Your task to perform on an android device: Check the weather Image 0: 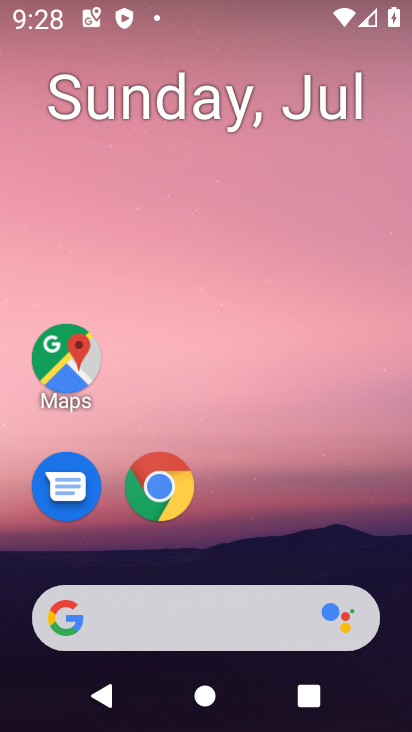
Step 0: press home button
Your task to perform on an android device: Check the weather Image 1: 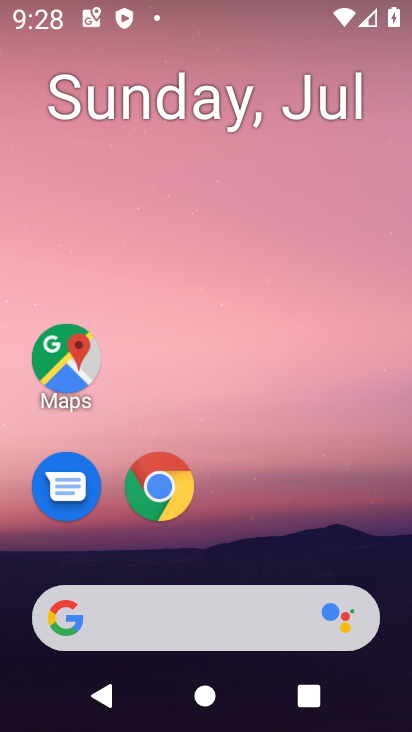
Step 1: click (192, 619)
Your task to perform on an android device: Check the weather Image 2: 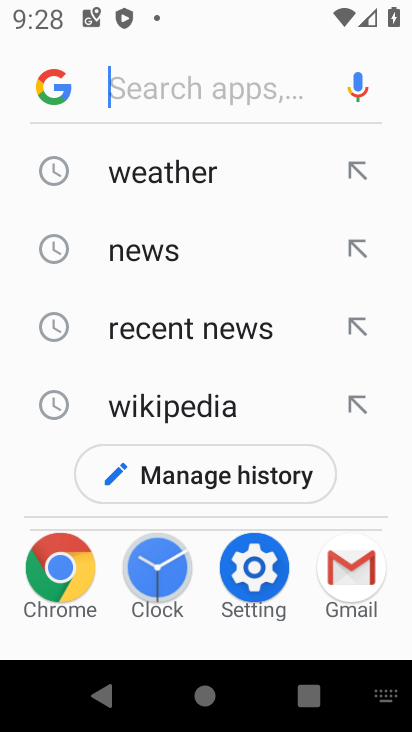
Step 2: click (217, 177)
Your task to perform on an android device: Check the weather Image 3: 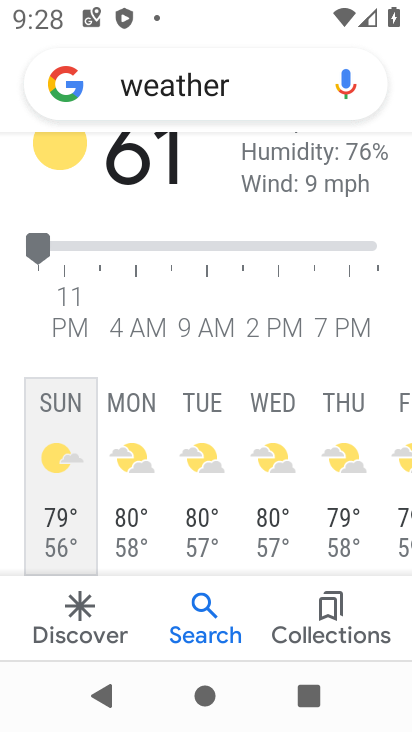
Step 3: task complete